Your task to perform on an android device: add a contact in the contacts app Image 0: 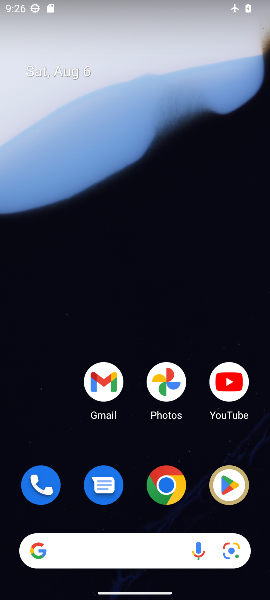
Step 0: drag from (138, 447) to (183, 52)
Your task to perform on an android device: add a contact in the contacts app Image 1: 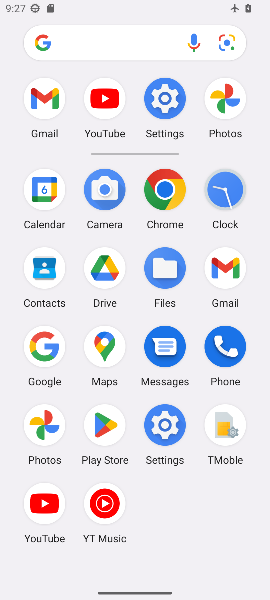
Step 1: click (40, 270)
Your task to perform on an android device: add a contact in the contacts app Image 2: 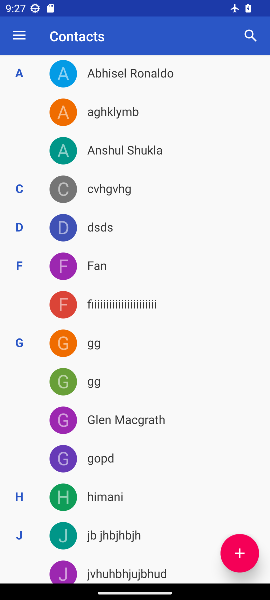
Step 2: click (245, 548)
Your task to perform on an android device: add a contact in the contacts app Image 3: 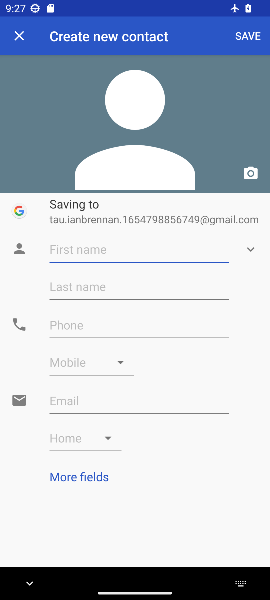
Step 3: type "holiday"
Your task to perform on an android device: add a contact in the contacts app Image 4: 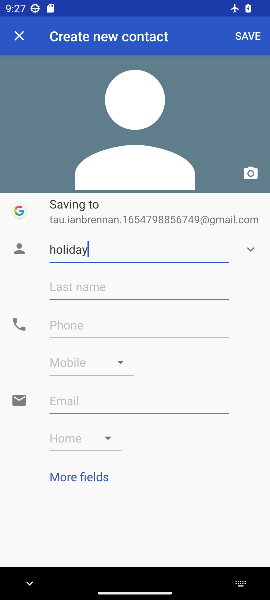
Step 4: click (253, 33)
Your task to perform on an android device: add a contact in the contacts app Image 5: 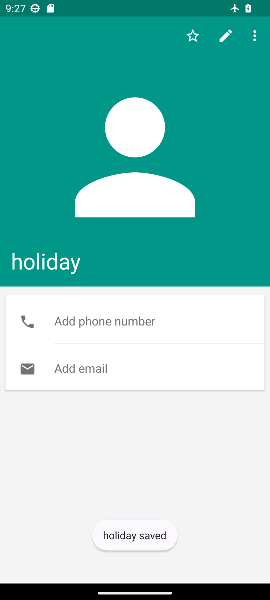
Step 5: task complete